Your task to perform on an android device: When is my next appointment? Image 0: 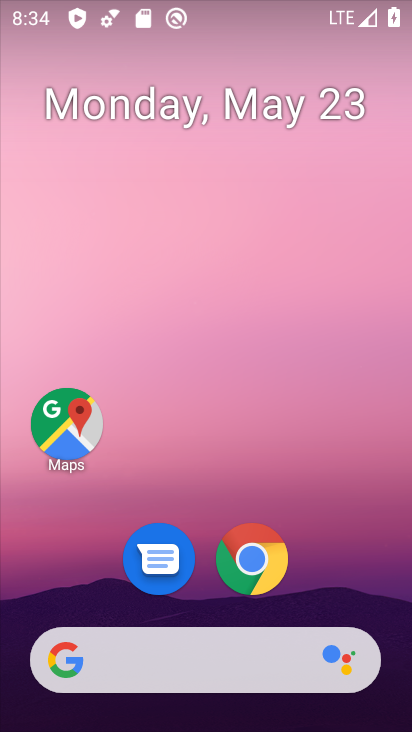
Step 0: drag from (210, 597) to (306, 20)
Your task to perform on an android device: When is my next appointment? Image 1: 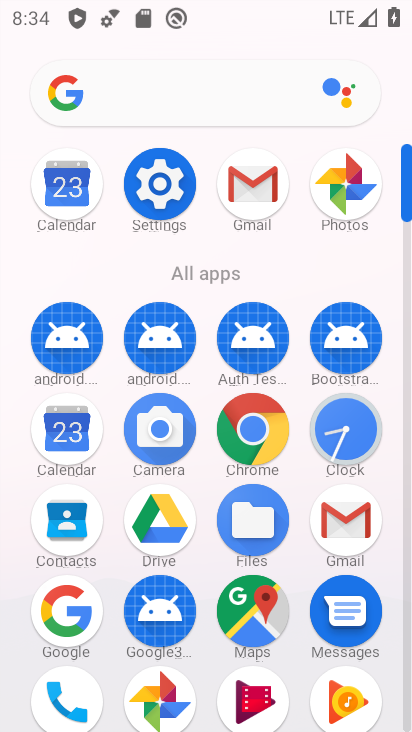
Step 1: click (73, 424)
Your task to perform on an android device: When is my next appointment? Image 2: 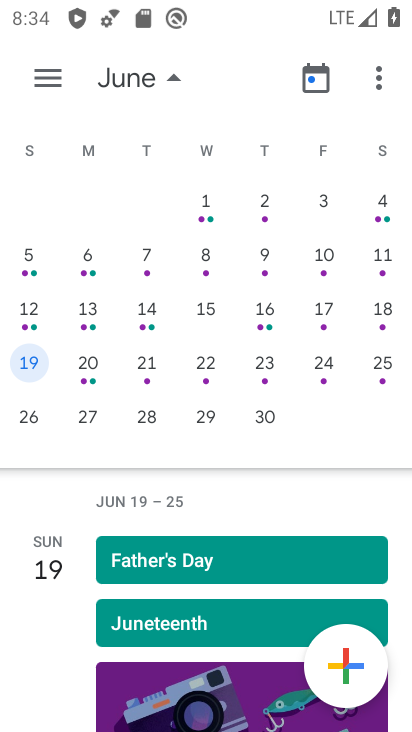
Step 2: drag from (51, 334) to (387, 342)
Your task to perform on an android device: When is my next appointment? Image 3: 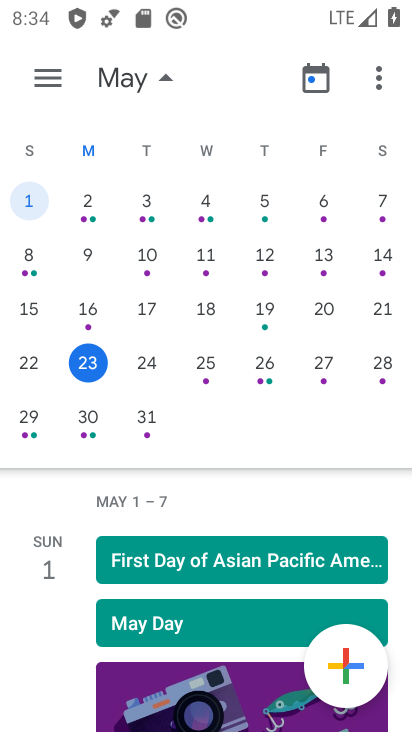
Step 3: click (81, 365)
Your task to perform on an android device: When is my next appointment? Image 4: 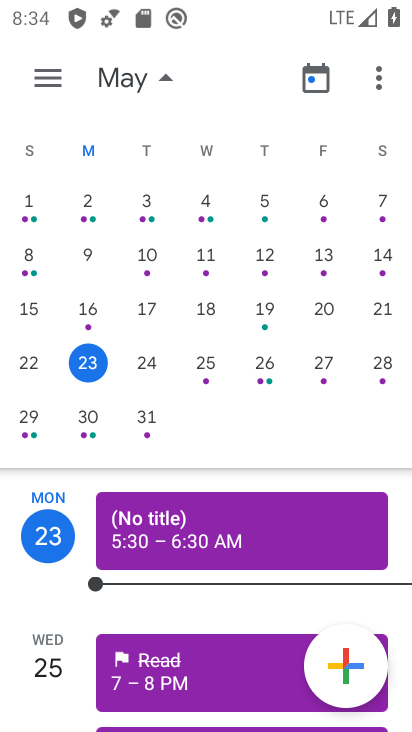
Step 4: task complete